Your task to perform on an android device: choose inbox layout in the gmail app Image 0: 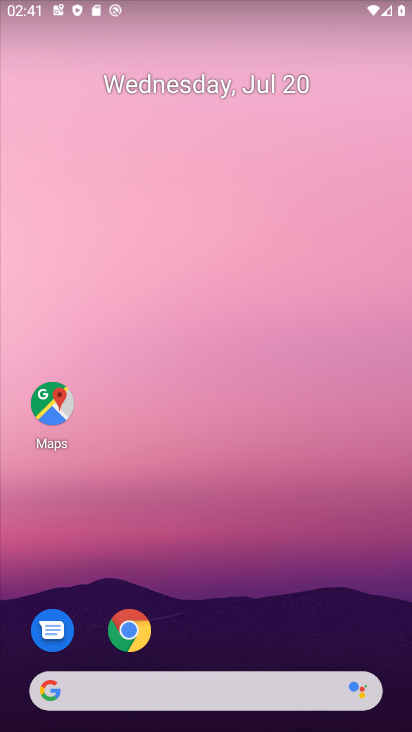
Step 0: drag from (345, 599) to (370, 111)
Your task to perform on an android device: choose inbox layout in the gmail app Image 1: 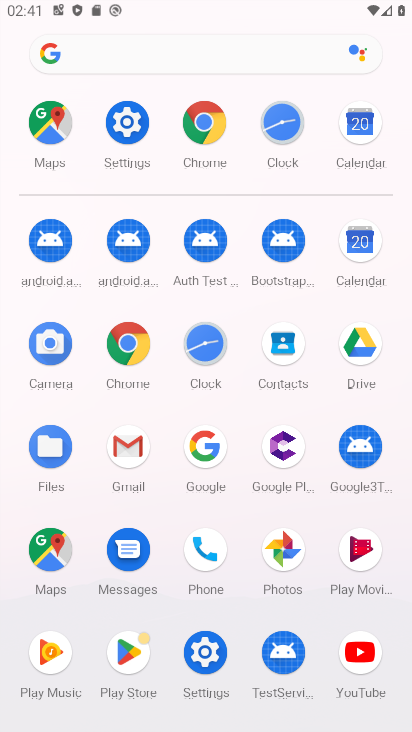
Step 1: click (139, 446)
Your task to perform on an android device: choose inbox layout in the gmail app Image 2: 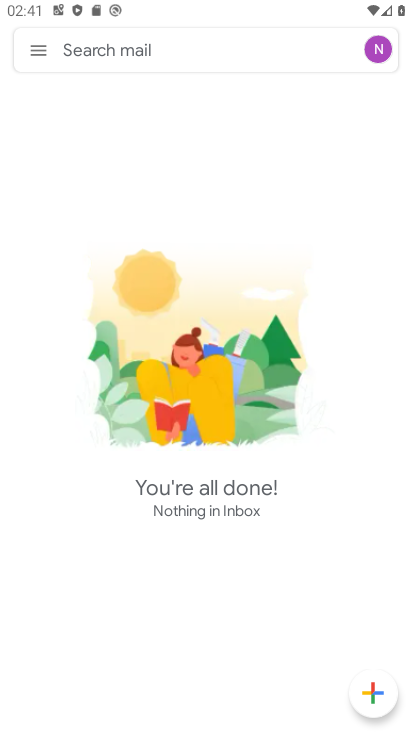
Step 2: click (43, 54)
Your task to perform on an android device: choose inbox layout in the gmail app Image 3: 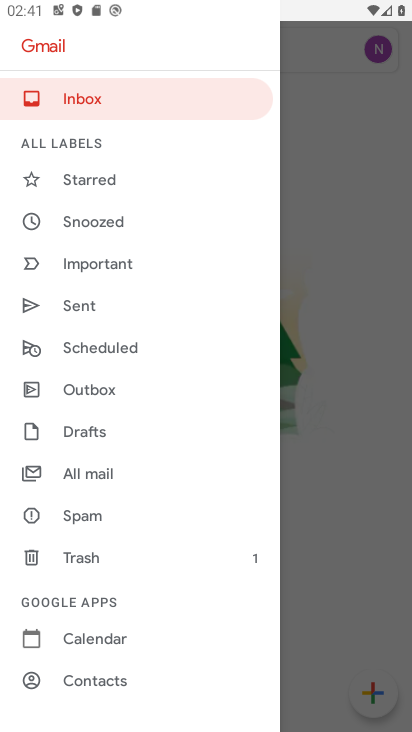
Step 3: drag from (176, 445) to (196, 344)
Your task to perform on an android device: choose inbox layout in the gmail app Image 4: 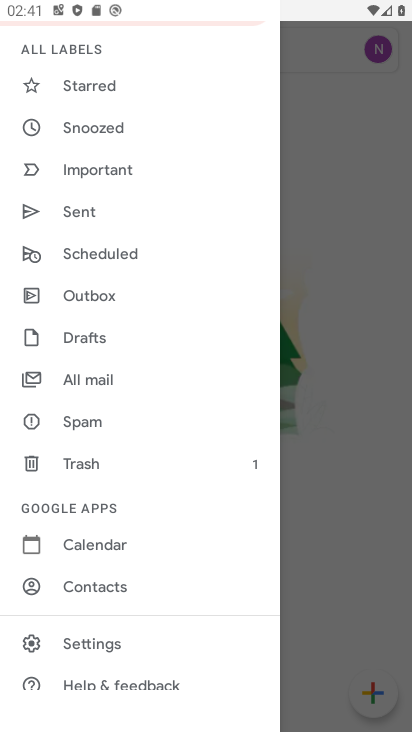
Step 4: drag from (196, 495) to (206, 428)
Your task to perform on an android device: choose inbox layout in the gmail app Image 5: 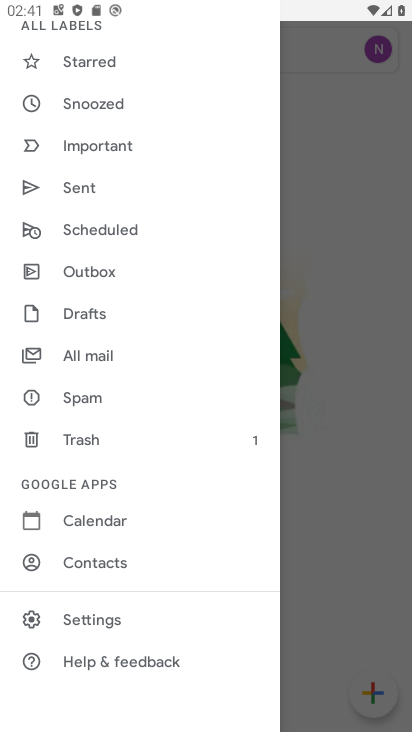
Step 5: click (153, 617)
Your task to perform on an android device: choose inbox layout in the gmail app Image 6: 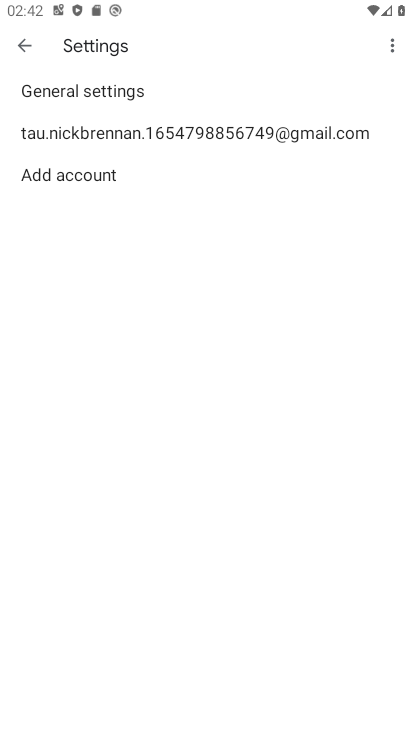
Step 6: click (256, 138)
Your task to perform on an android device: choose inbox layout in the gmail app Image 7: 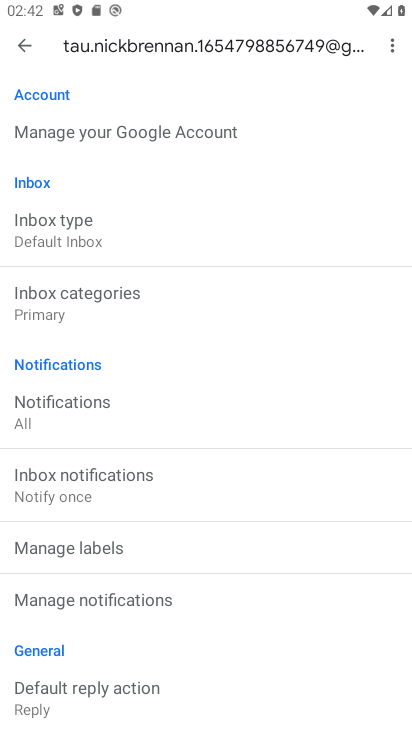
Step 7: drag from (330, 444) to (328, 367)
Your task to perform on an android device: choose inbox layout in the gmail app Image 8: 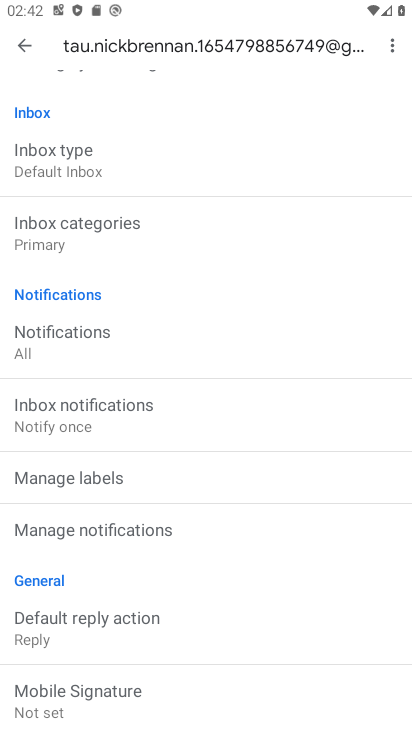
Step 8: drag from (327, 458) to (328, 374)
Your task to perform on an android device: choose inbox layout in the gmail app Image 9: 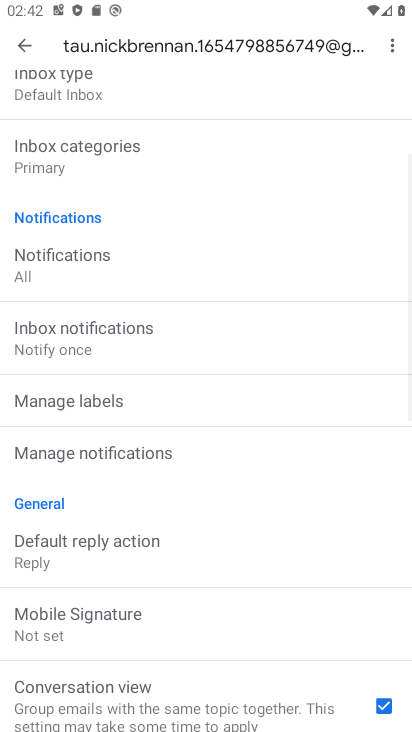
Step 9: drag from (317, 498) to (317, 376)
Your task to perform on an android device: choose inbox layout in the gmail app Image 10: 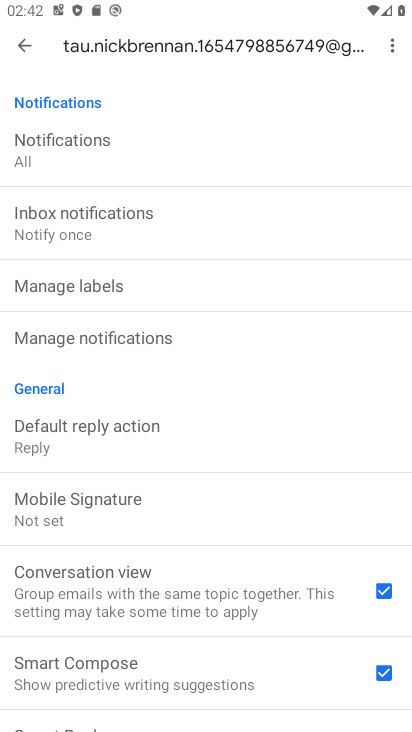
Step 10: drag from (323, 437) to (322, 352)
Your task to perform on an android device: choose inbox layout in the gmail app Image 11: 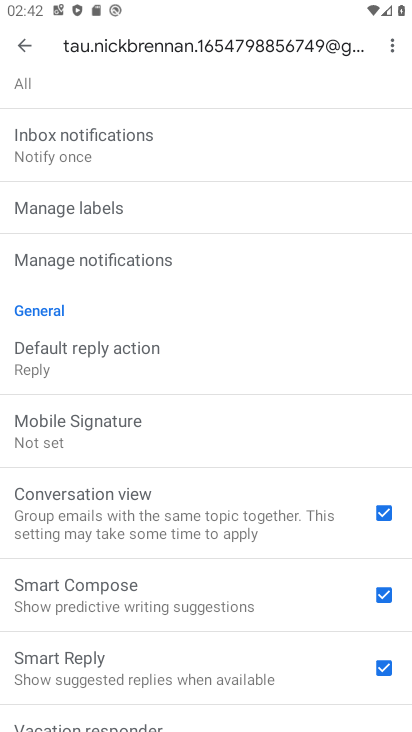
Step 11: drag from (308, 429) to (309, 341)
Your task to perform on an android device: choose inbox layout in the gmail app Image 12: 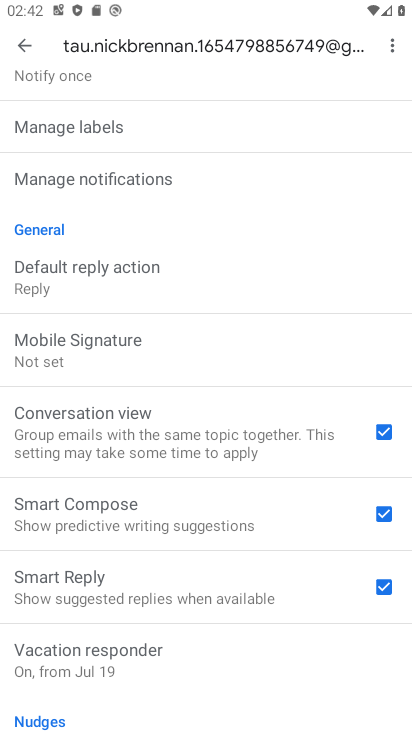
Step 12: drag from (302, 470) to (294, 359)
Your task to perform on an android device: choose inbox layout in the gmail app Image 13: 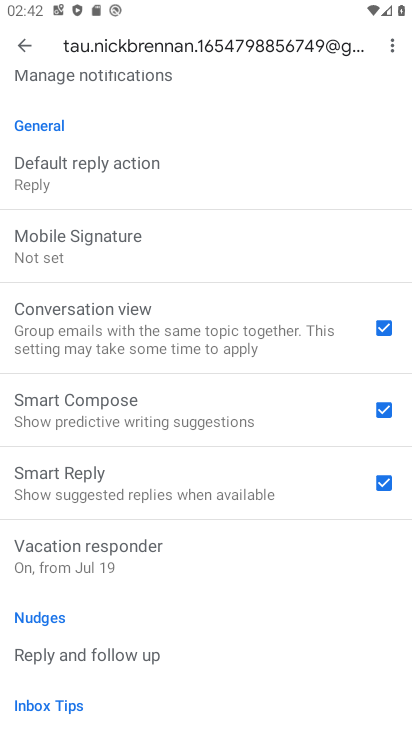
Step 13: drag from (307, 515) to (306, 402)
Your task to perform on an android device: choose inbox layout in the gmail app Image 14: 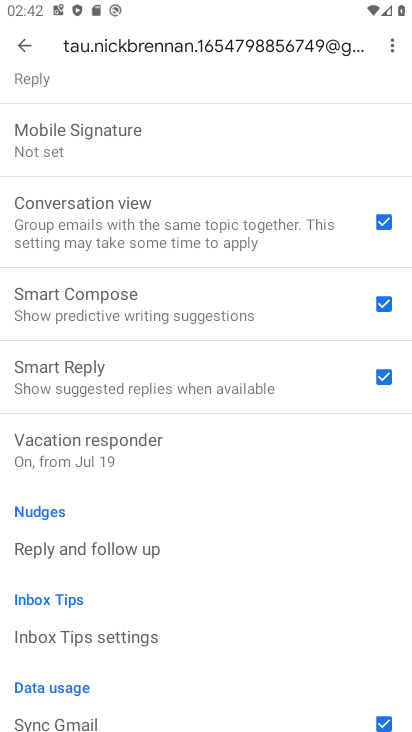
Step 14: drag from (312, 282) to (312, 387)
Your task to perform on an android device: choose inbox layout in the gmail app Image 15: 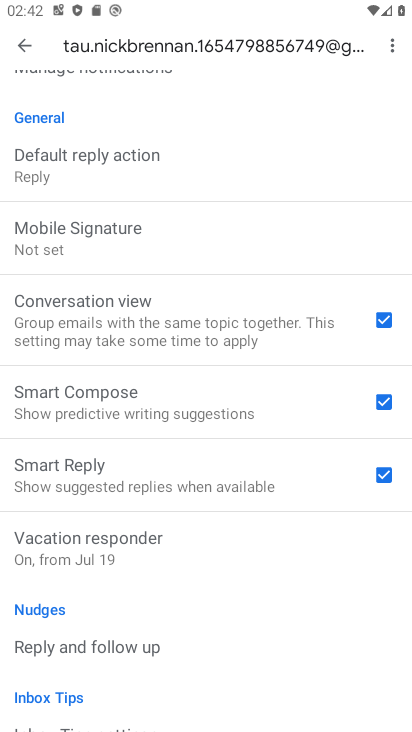
Step 15: drag from (304, 201) to (309, 369)
Your task to perform on an android device: choose inbox layout in the gmail app Image 16: 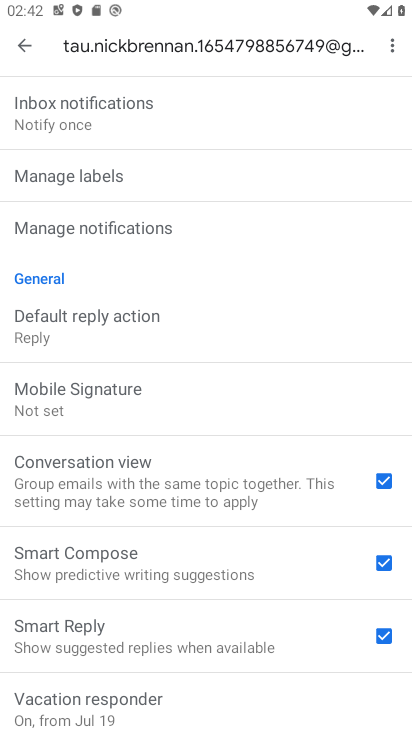
Step 16: drag from (302, 239) to (292, 355)
Your task to perform on an android device: choose inbox layout in the gmail app Image 17: 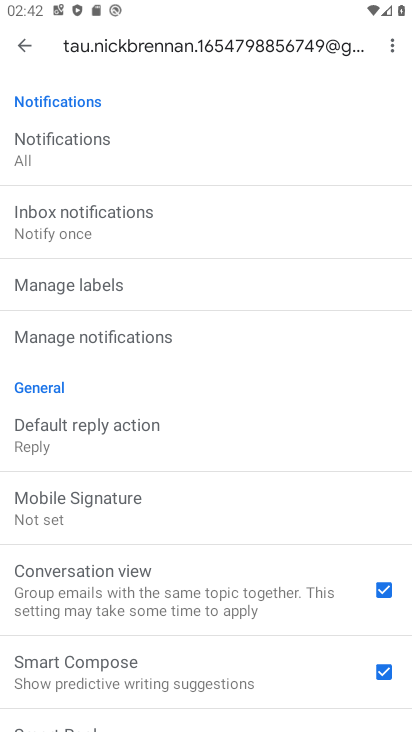
Step 17: drag from (300, 168) to (297, 351)
Your task to perform on an android device: choose inbox layout in the gmail app Image 18: 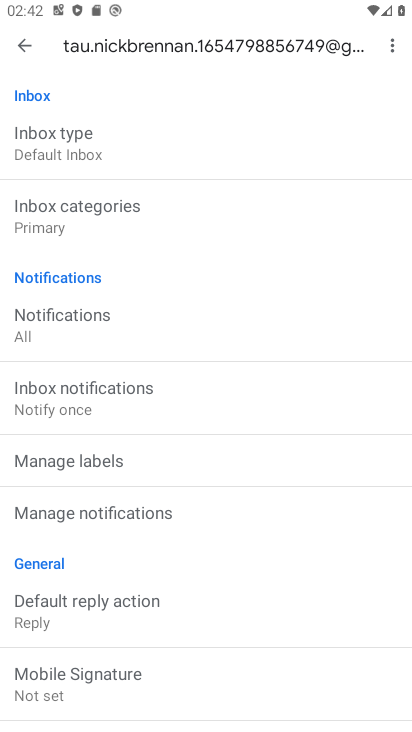
Step 18: click (133, 166)
Your task to perform on an android device: choose inbox layout in the gmail app Image 19: 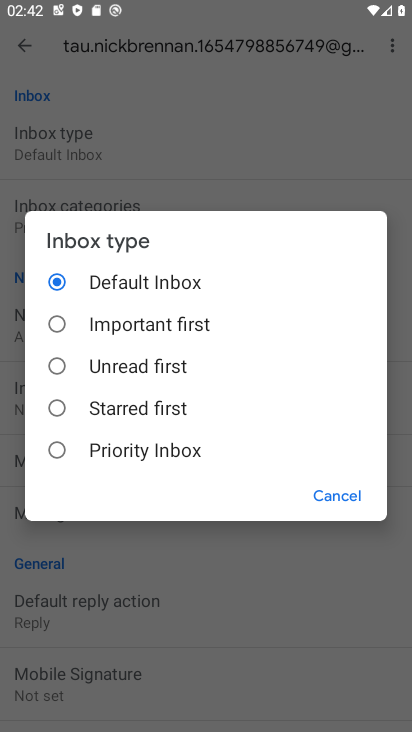
Step 19: click (164, 321)
Your task to perform on an android device: choose inbox layout in the gmail app Image 20: 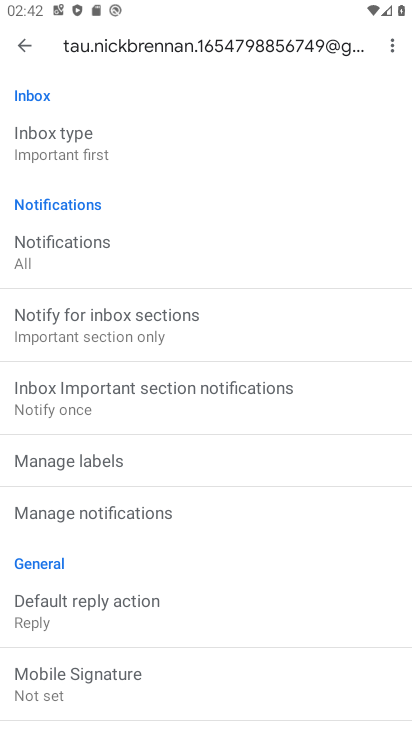
Step 20: task complete